Your task to perform on an android device: Is it going to rain today? Image 0: 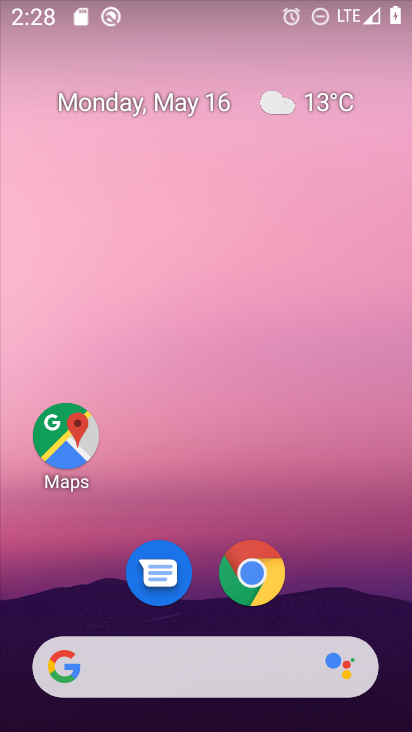
Step 0: click (299, 100)
Your task to perform on an android device: Is it going to rain today? Image 1: 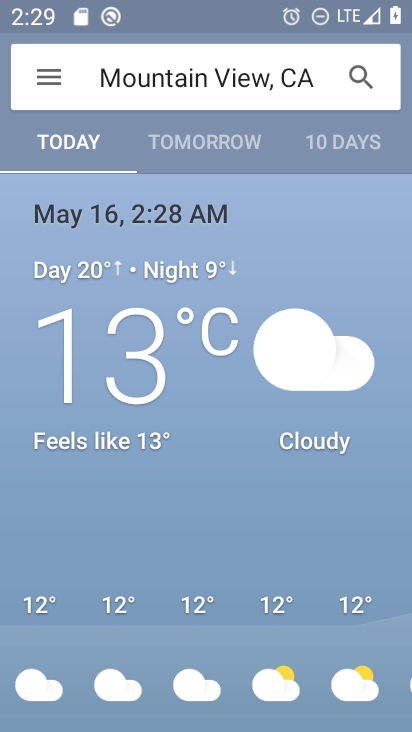
Step 1: task complete